Your task to perform on an android device: open app "Adobe Acrobat Reader: Edit PDF" Image 0: 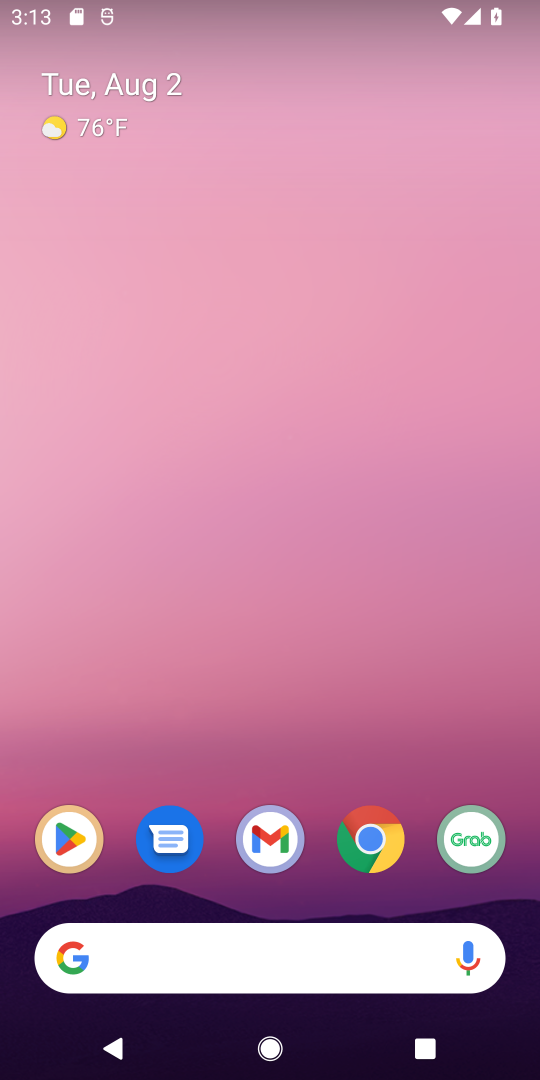
Step 0: drag from (285, 891) to (363, 78)
Your task to perform on an android device: open app "Adobe Acrobat Reader: Edit PDF" Image 1: 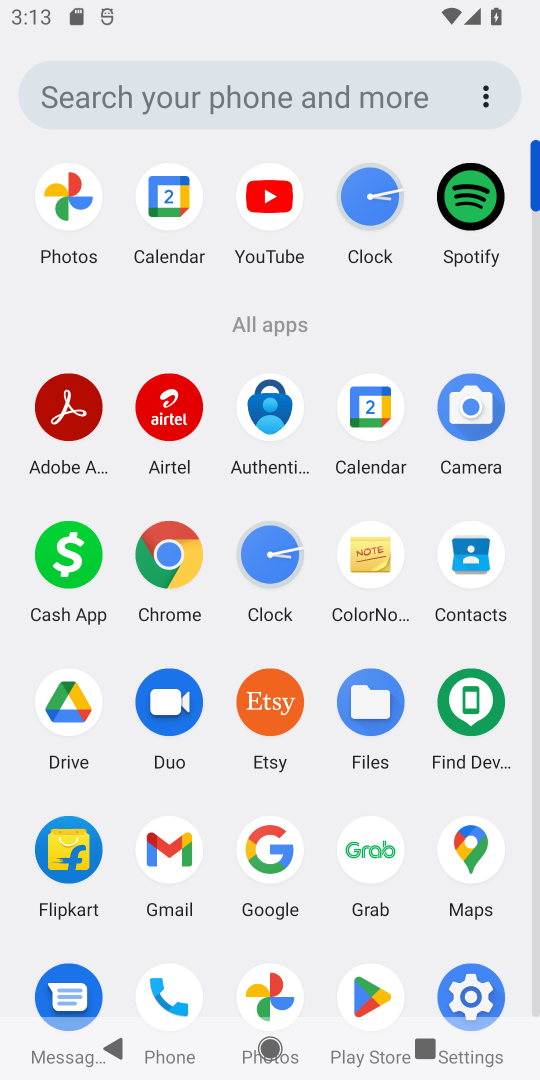
Step 1: click (60, 416)
Your task to perform on an android device: open app "Adobe Acrobat Reader: Edit PDF" Image 2: 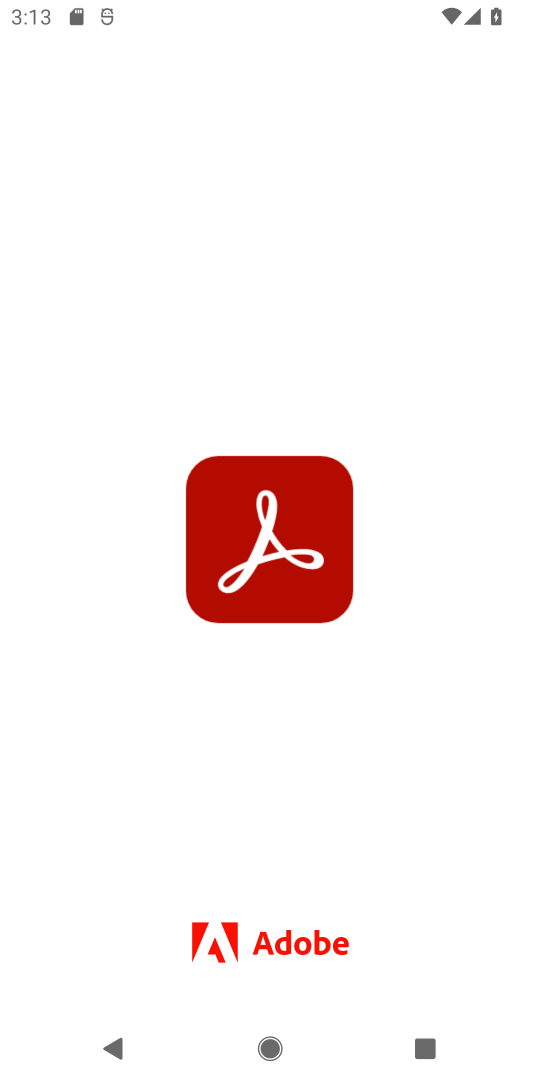
Step 2: task complete